Your task to perform on an android device: Open Reddit.com Image 0: 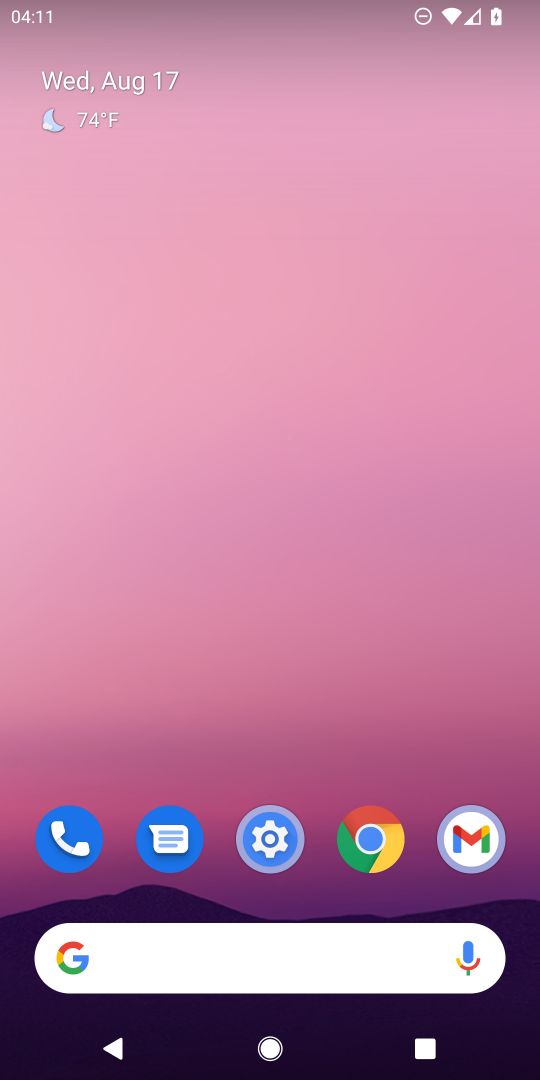
Step 0: click (375, 837)
Your task to perform on an android device: Open Reddit.com Image 1: 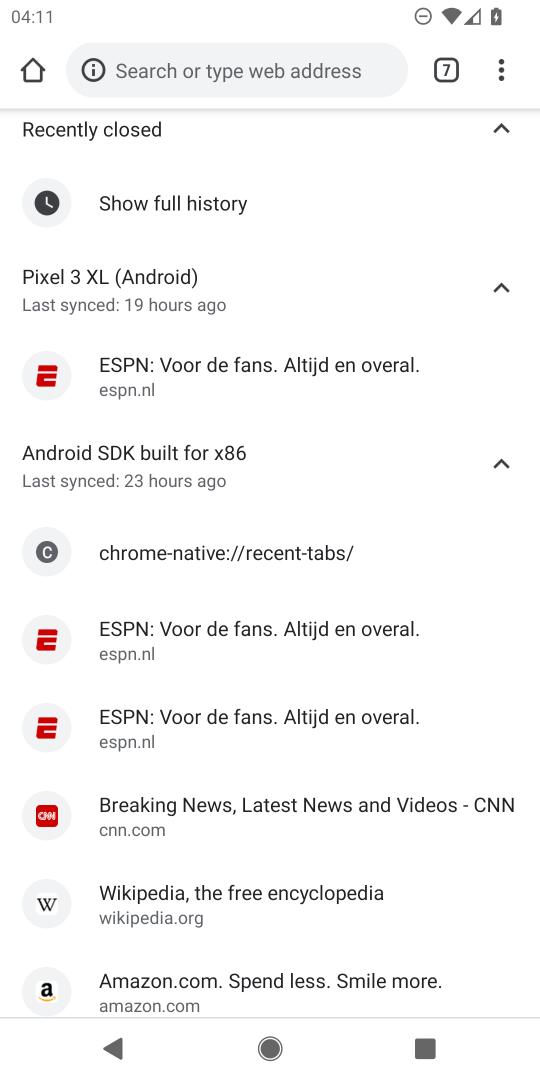
Step 1: click (503, 79)
Your task to perform on an android device: Open Reddit.com Image 2: 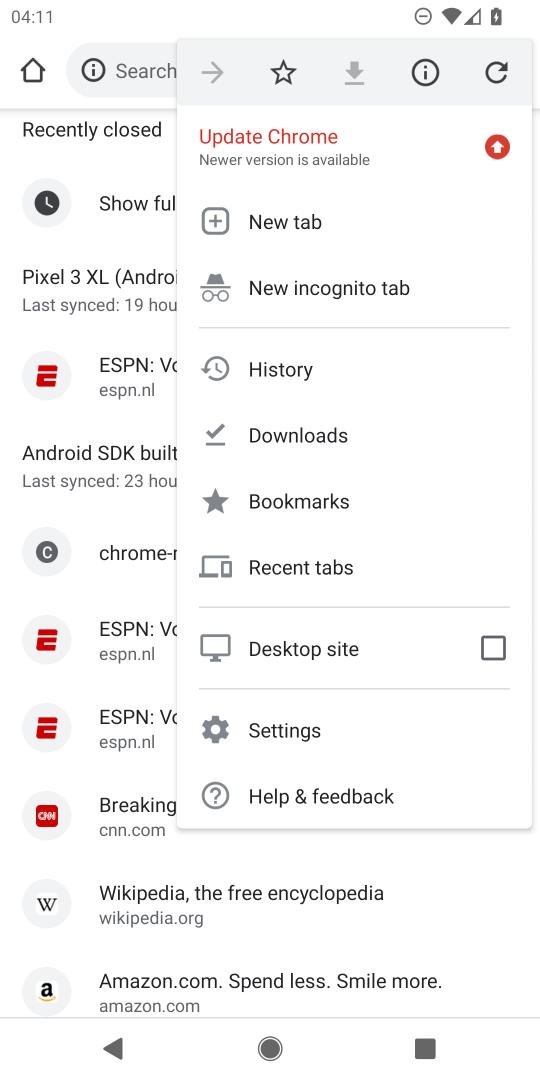
Step 2: click (291, 220)
Your task to perform on an android device: Open Reddit.com Image 3: 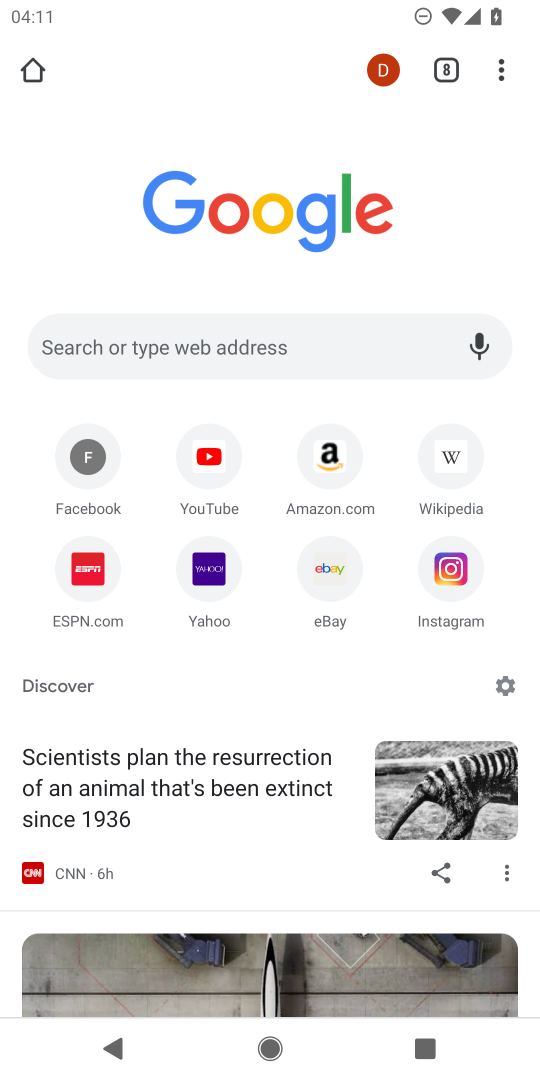
Step 3: click (343, 350)
Your task to perform on an android device: Open Reddit.com Image 4: 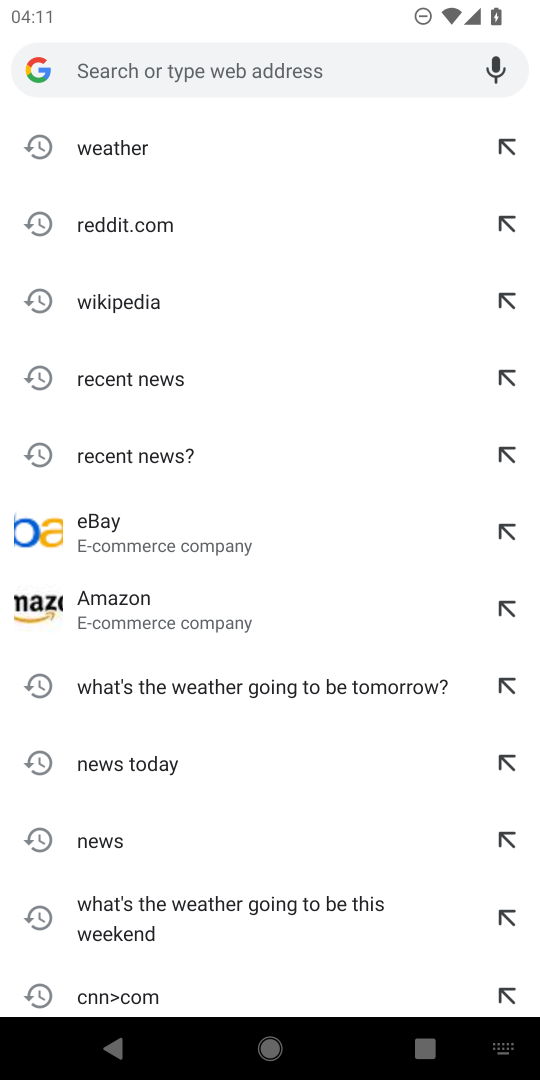
Step 4: click (115, 225)
Your task to perform on an android device: Open Reddit.com Image 5: 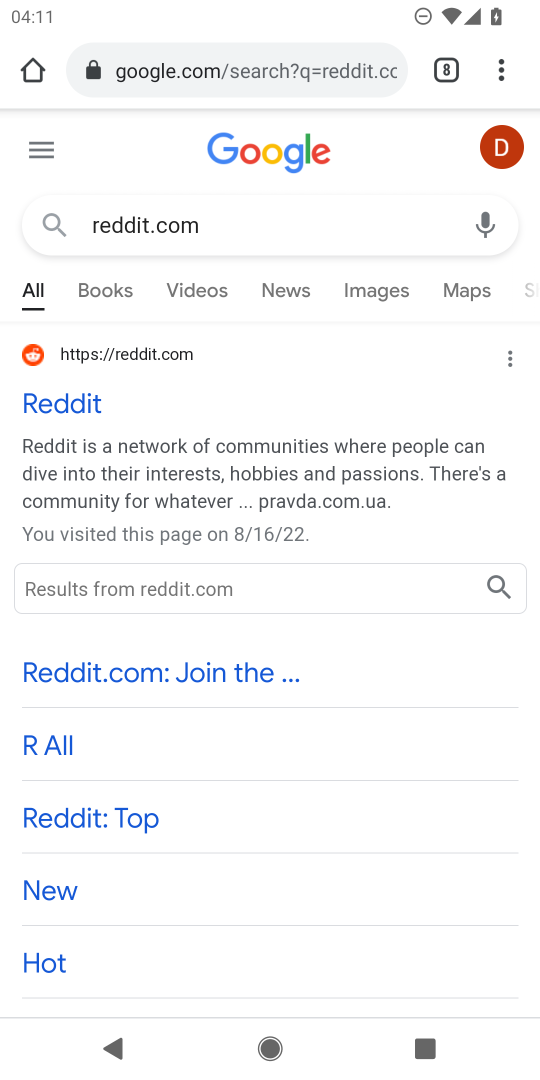
Step 5: click (76, 394)
Your task to perform on an android device: Open Reddit.com Image 6: 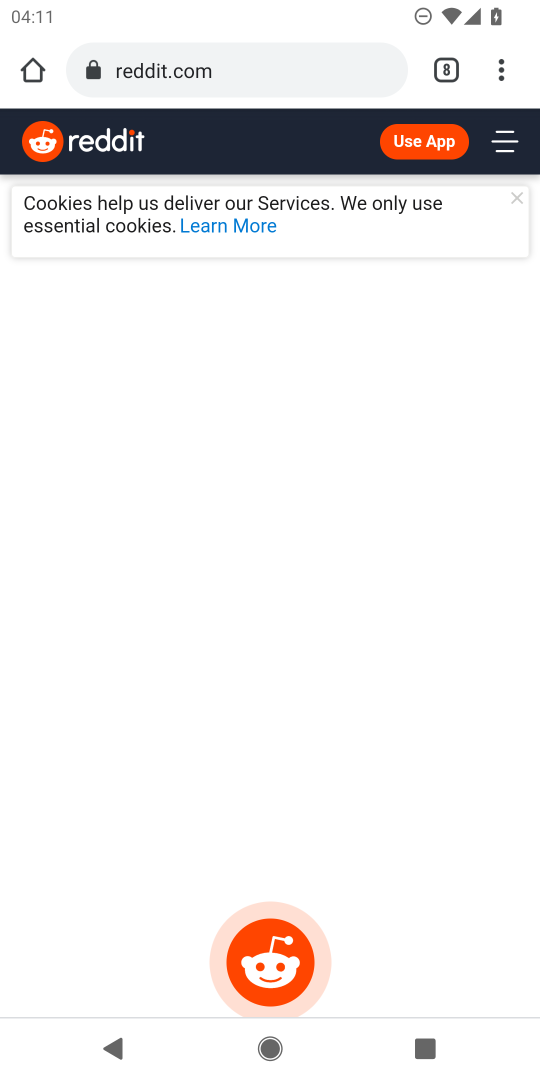
Step 6: task complete